Your task to perform on an android device: Set the phone to "Do not disturb". Image 0: 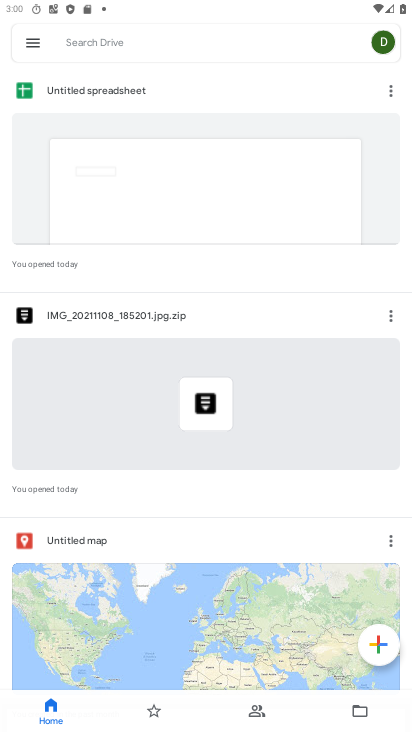
Step 0: press home button
Your task to perform on an android device: Set the phone to "Do not disturb". Image 1: 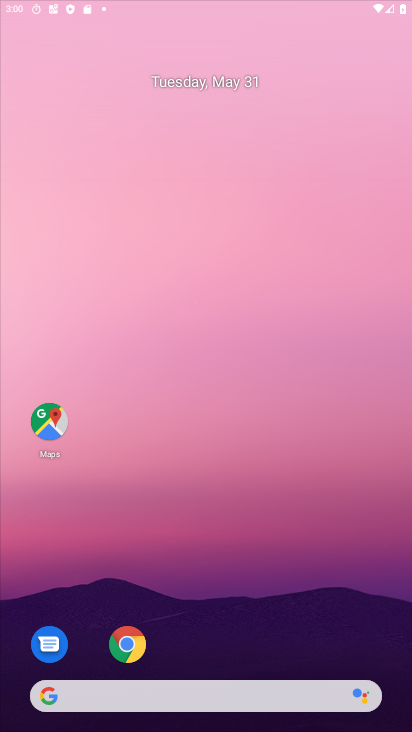
Step 1: press home button
Your task to perform on an android device: Set the phone to "Do not disturb". Image 2: 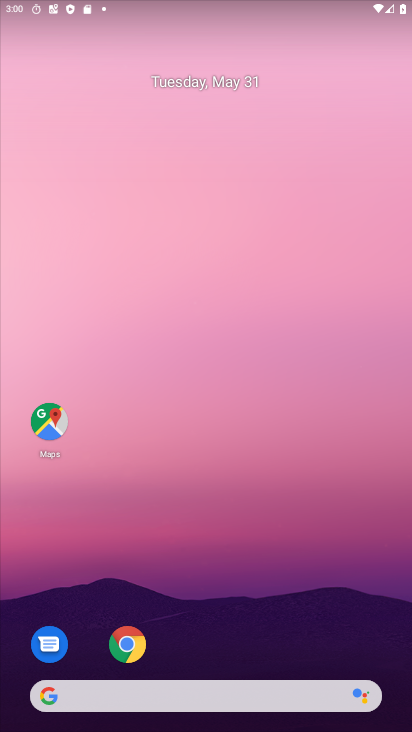
Step 2: drag from (399, 676) to (256, 145)
Your task to perform on an android device: Set the phone to "Do not disturb". Image 3: 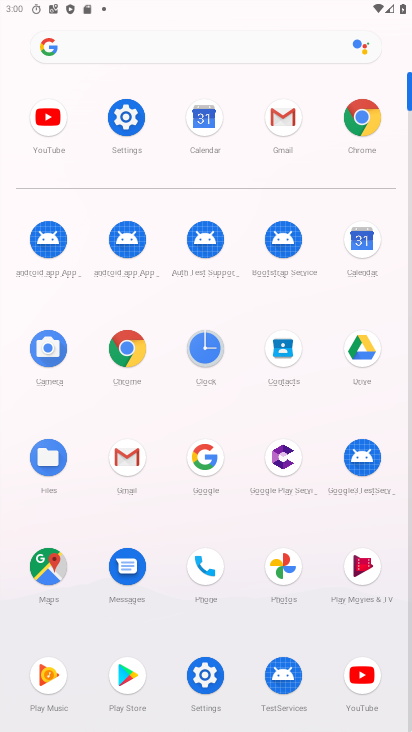
Step 3: click (131, 115)
Your task to perform on an android device: Set the phone to "Do not disturb". Image 4: 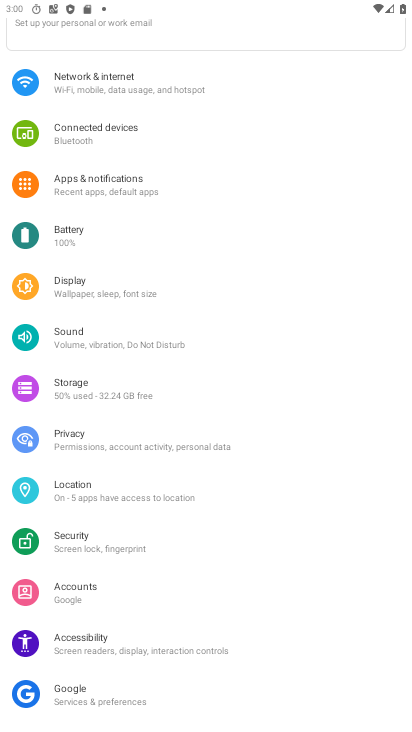
Step 4: click (70, 328)
Your task to perform on an android device: Set the phone to "Do not disturb". Image 5: 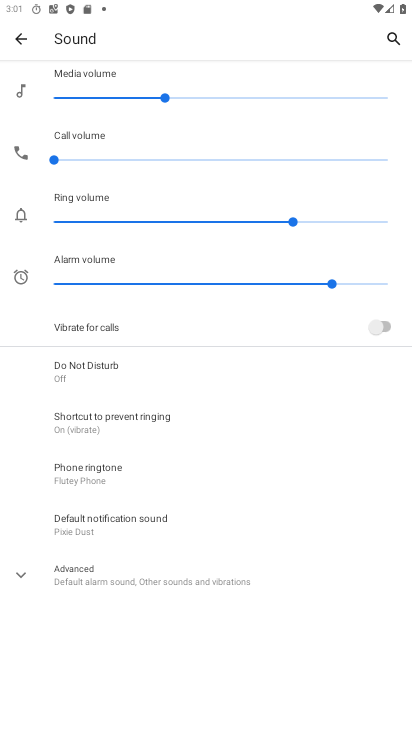
Step 5: click (70, 374)
Your task to perform on an android device: Set the phone to "Do not disturb". Image 6: 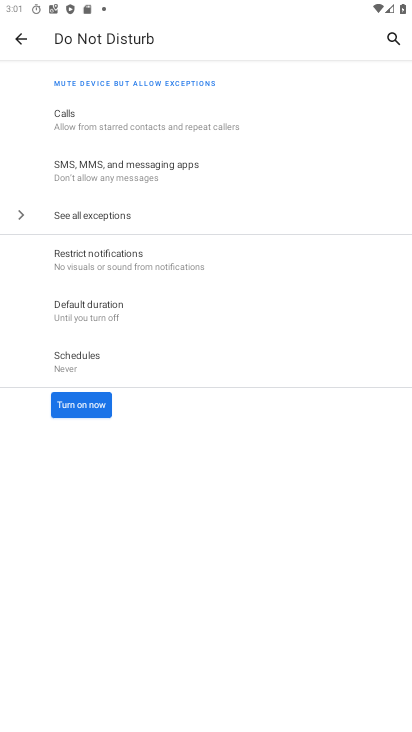
Step 6: click (77, 396)
Your task to perform on an android device: Set the phone to "Do not disturb". Image 7: 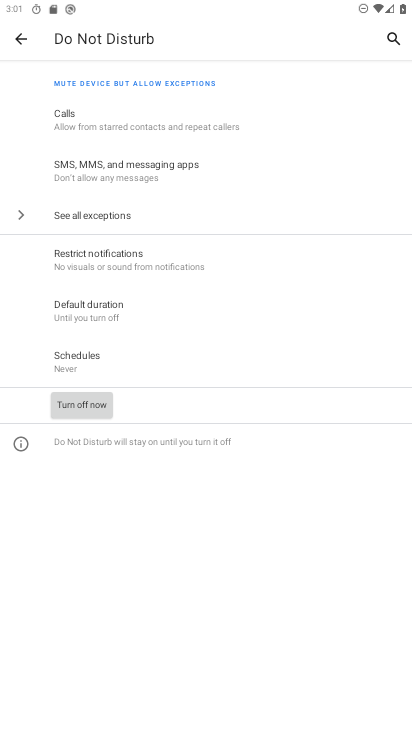
Step 7: task complete